Your task to perform on an android device: open app "eBay: The shopping marketplace" (install if not already installed) and go to login screen Image 0: 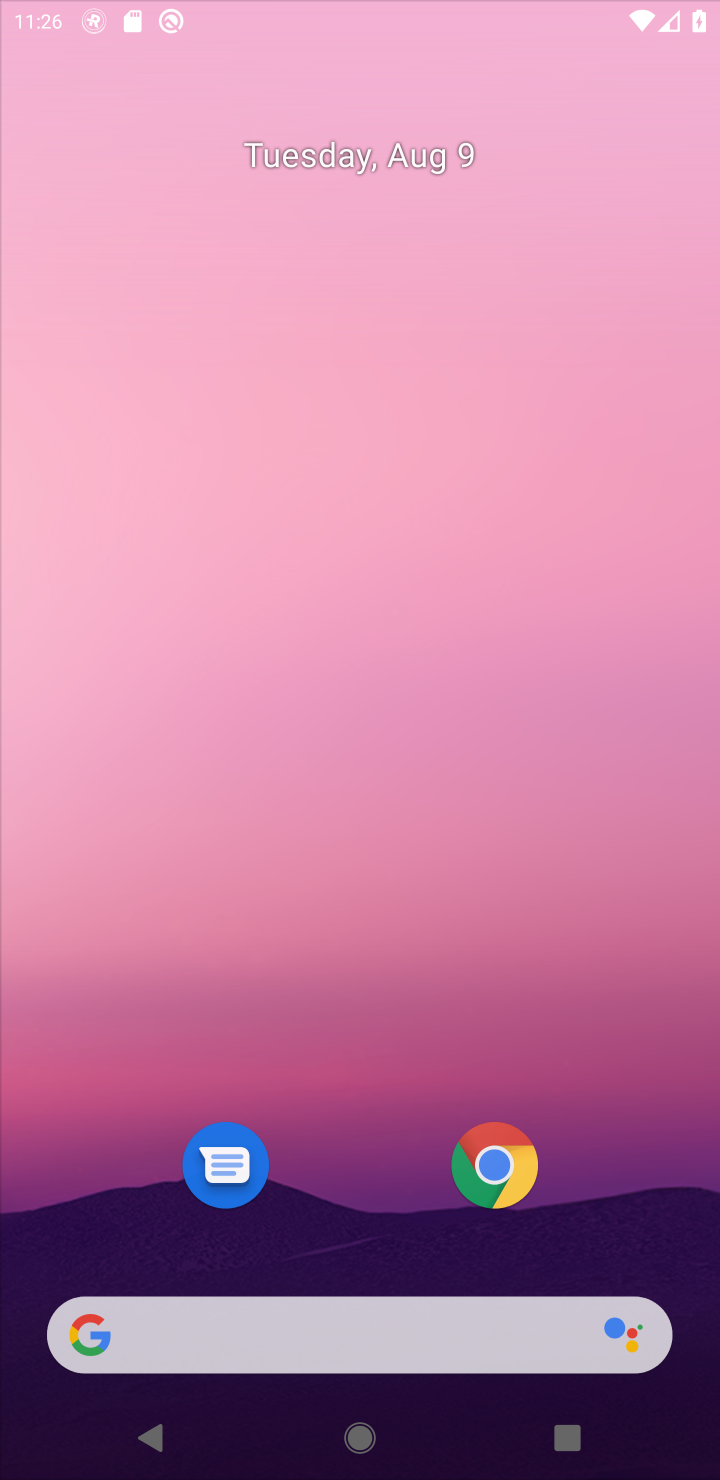
Step 0: press home button
Your task to perform on an android device: open app "eBay: The shopping marketplace" (install if not already installed) and go to login screen Image 1: 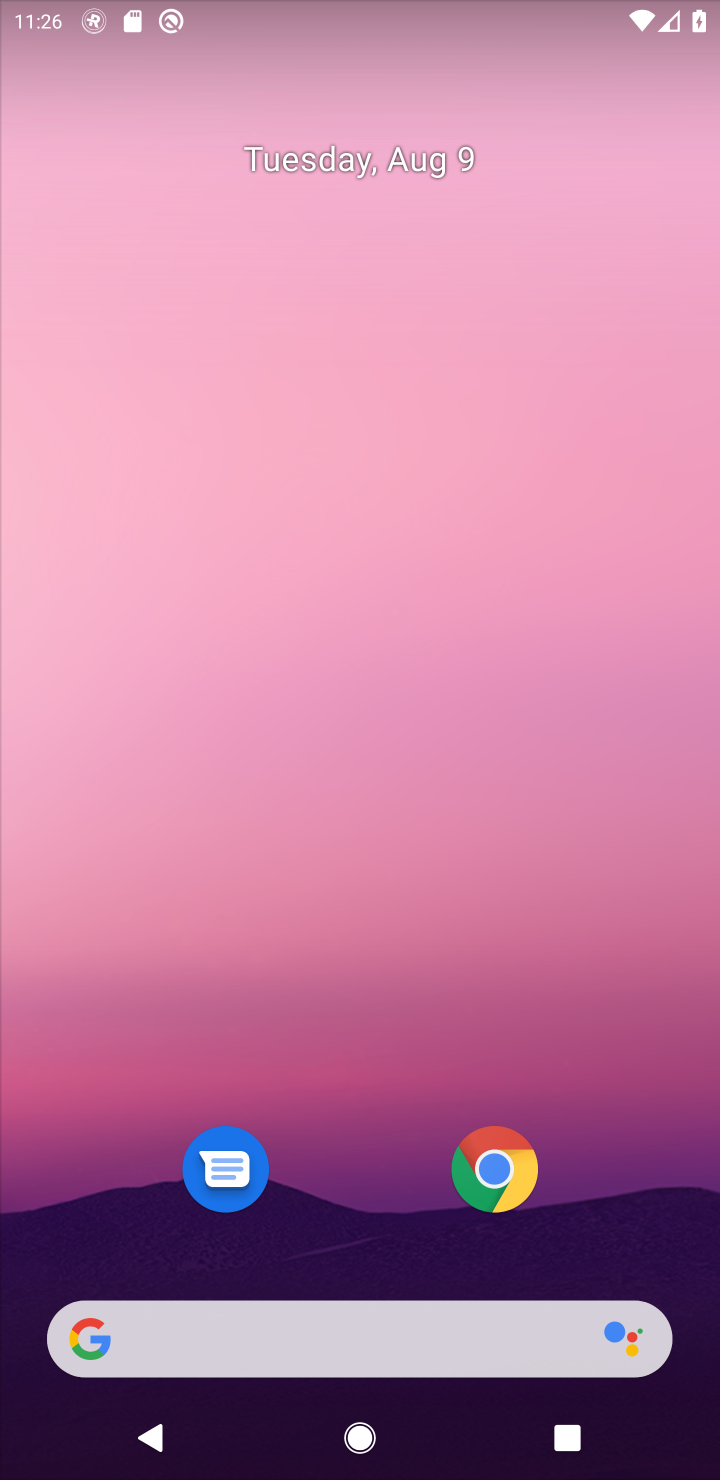
Step 1: drag from (610, 1031) to (590, 102)
Your task to perform on an android device: open app "eBay: The shopping marketplace" (install if not already installed) and go to login screen Image 2: 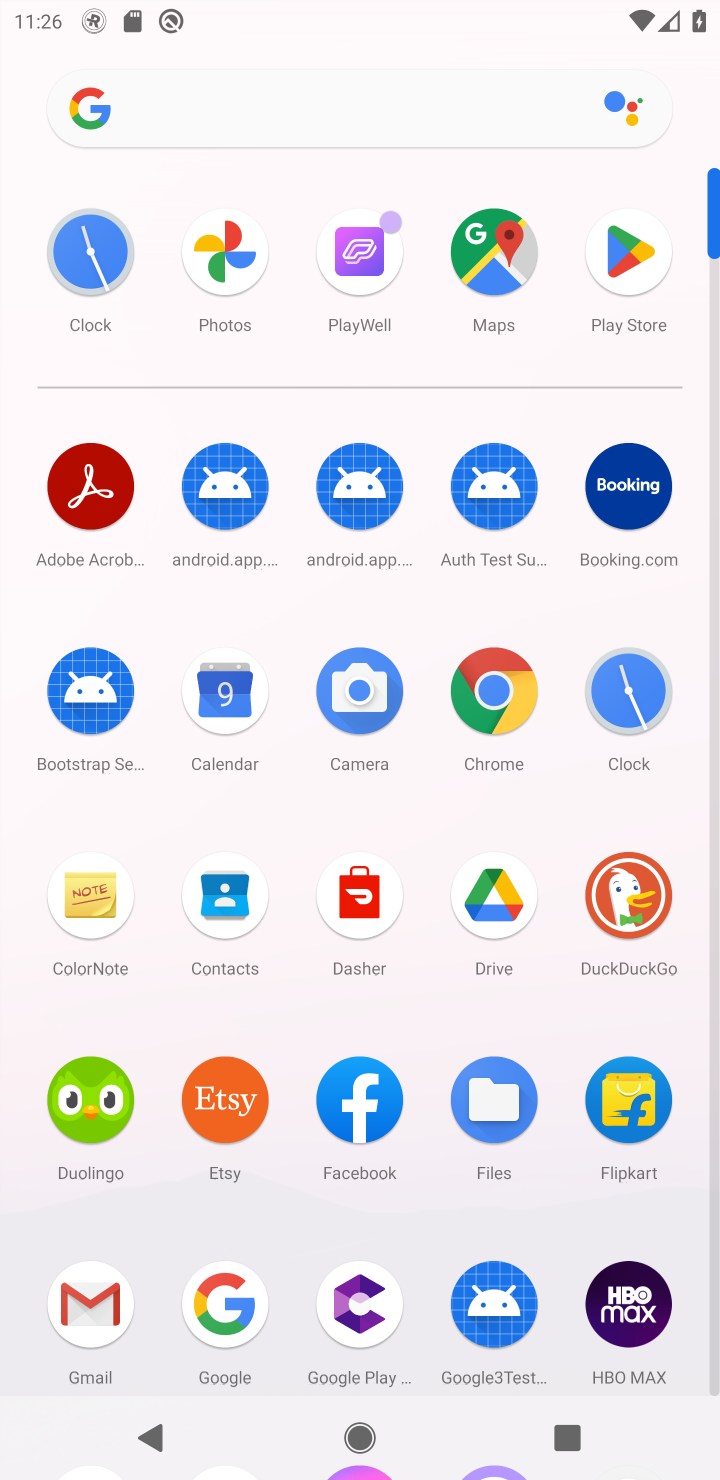
Step 2: click (629, 241)
Your task to perform on an android device: open app "eBay: The shopping marketplace" (install if not already installed) and go to login screen Image 3: 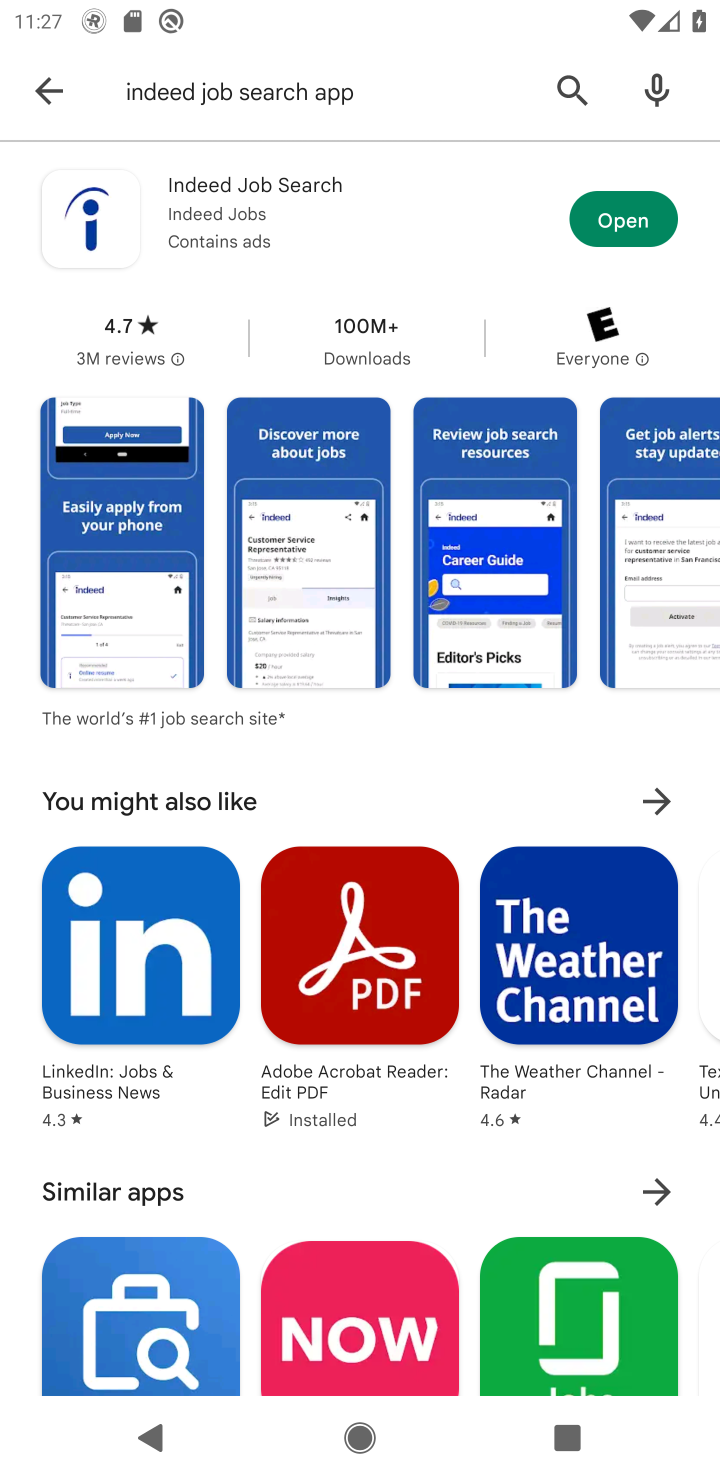
Step 3: click (565, 88)
Your task to perform on an android device: open app "eBay: The shopping marketplace" (install if not already installed) and go to login screen Image 4: 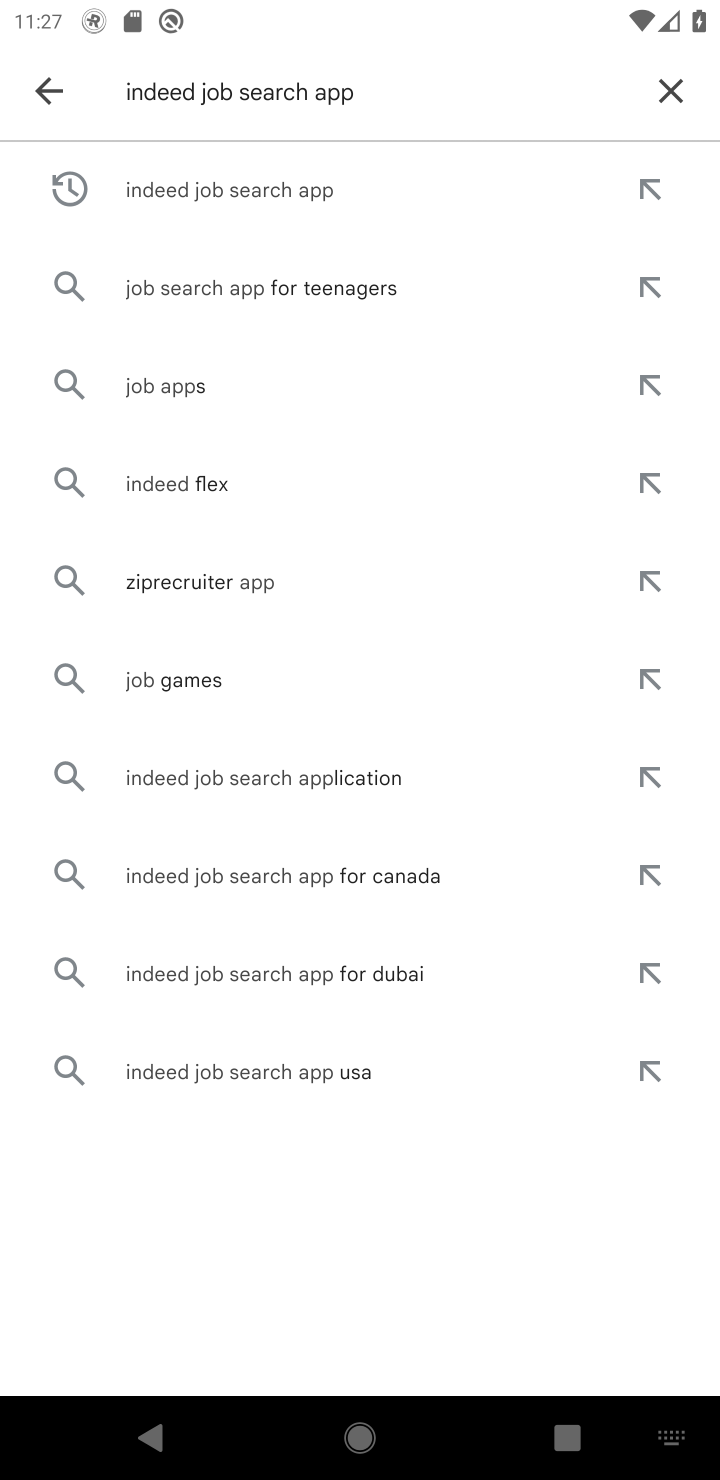
Step 4: click (673, 84)
Your task to perform on an android device: open app "eBay: The shopping marketplace" (install if not already installed) and go to login screen Image 5: 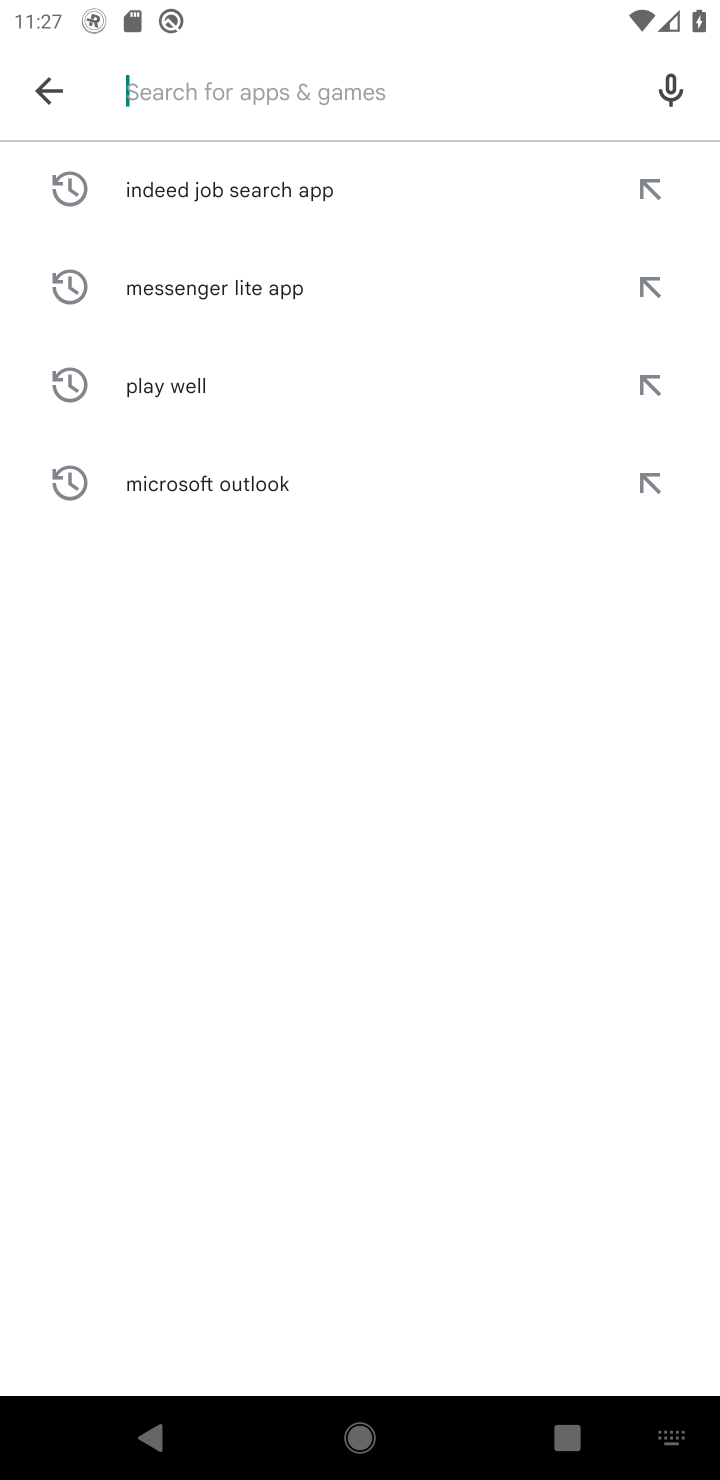
Step 5: type "eBay: The shopping marketplace"
Your task to perform on an android device: open app "eBay: The shopping marketplace" (install if not already installed) and go to login screen Image 6: 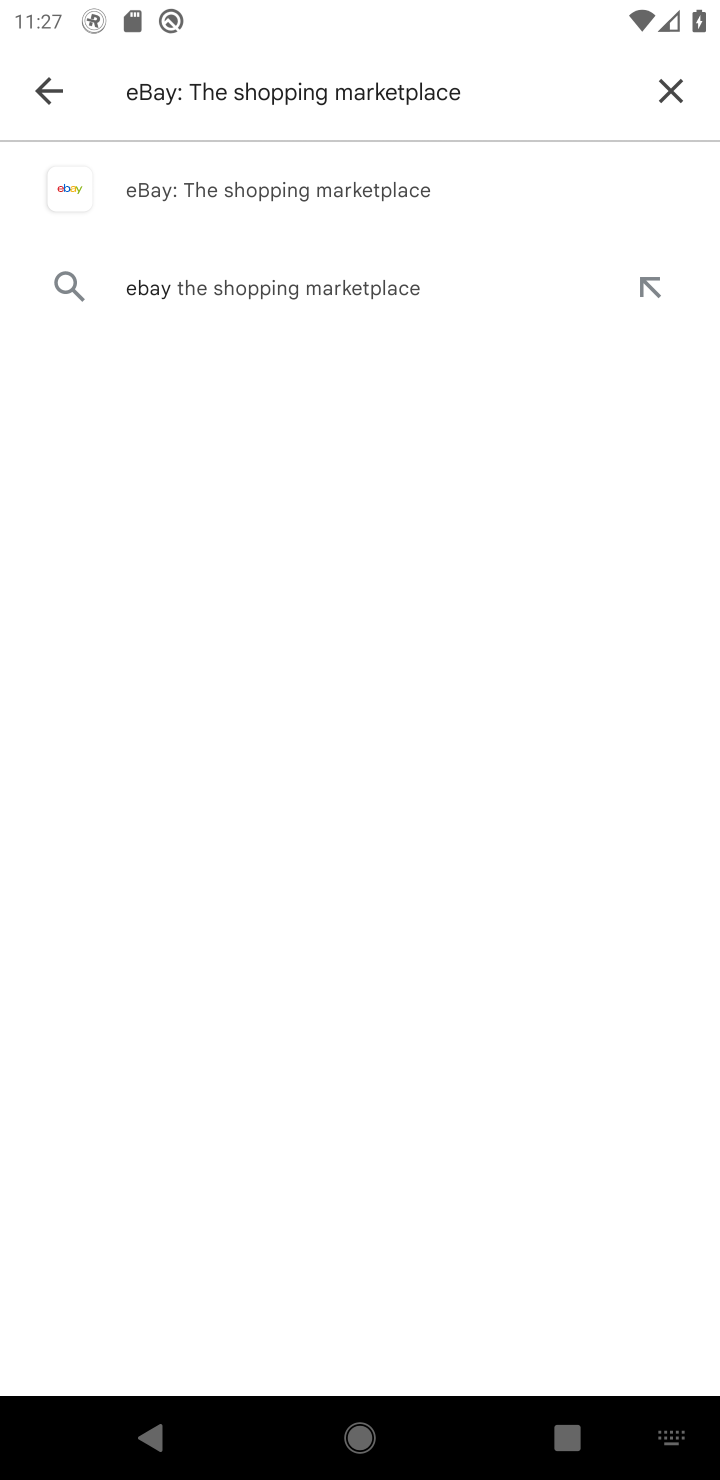
Step 6: click (379, 188)
Your task to perform on an android device: open app "eBay: The shopping marketplace" (install if not already installed) and go to login screen Image 7: 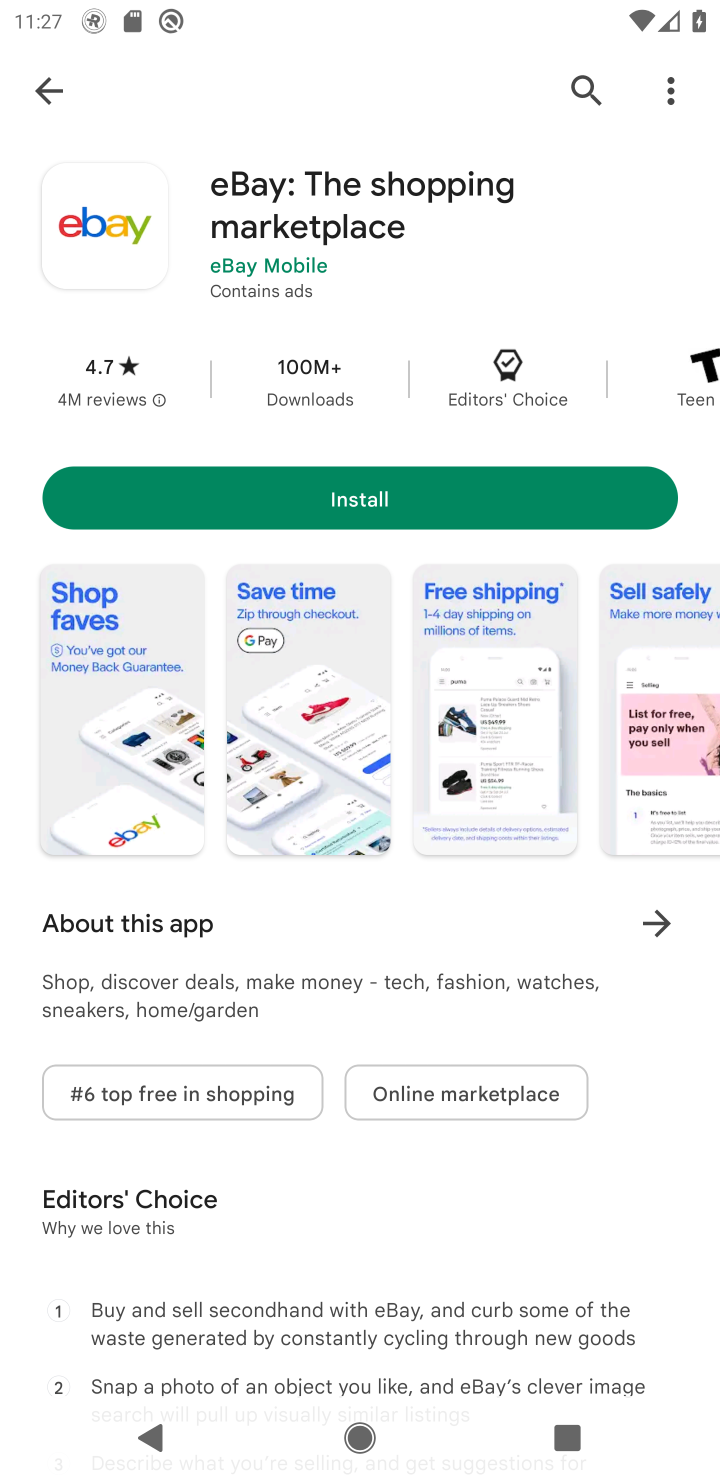
Step 7: click (395, 493)
Your task to perform on an android device: open app "eBay: The shopping marketplace" (install if not already installed) and go to login screen Image 8: 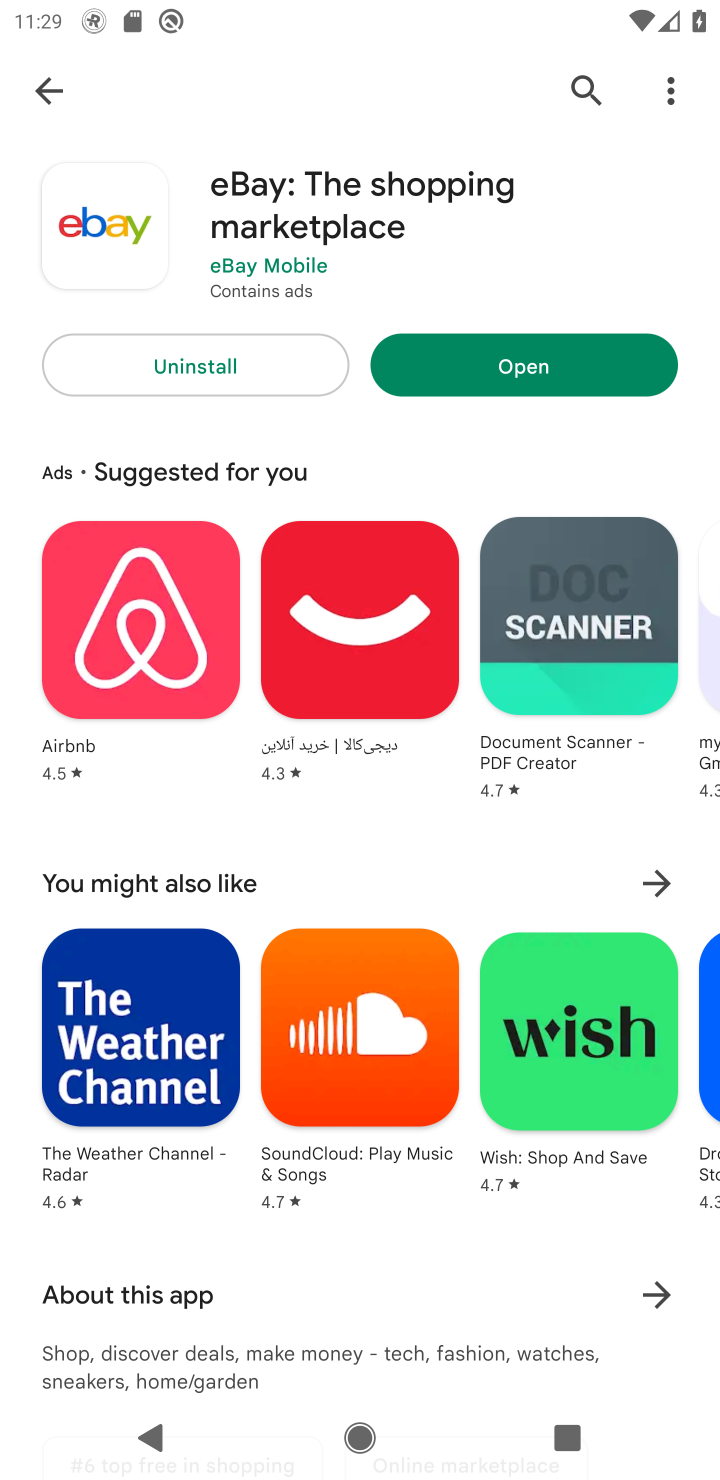
Step 8: click (541, 366)
Your task to perform on an android device: open app "eBay: The shopping marketplace" (install if not already installed) and go to login screen Image 9: 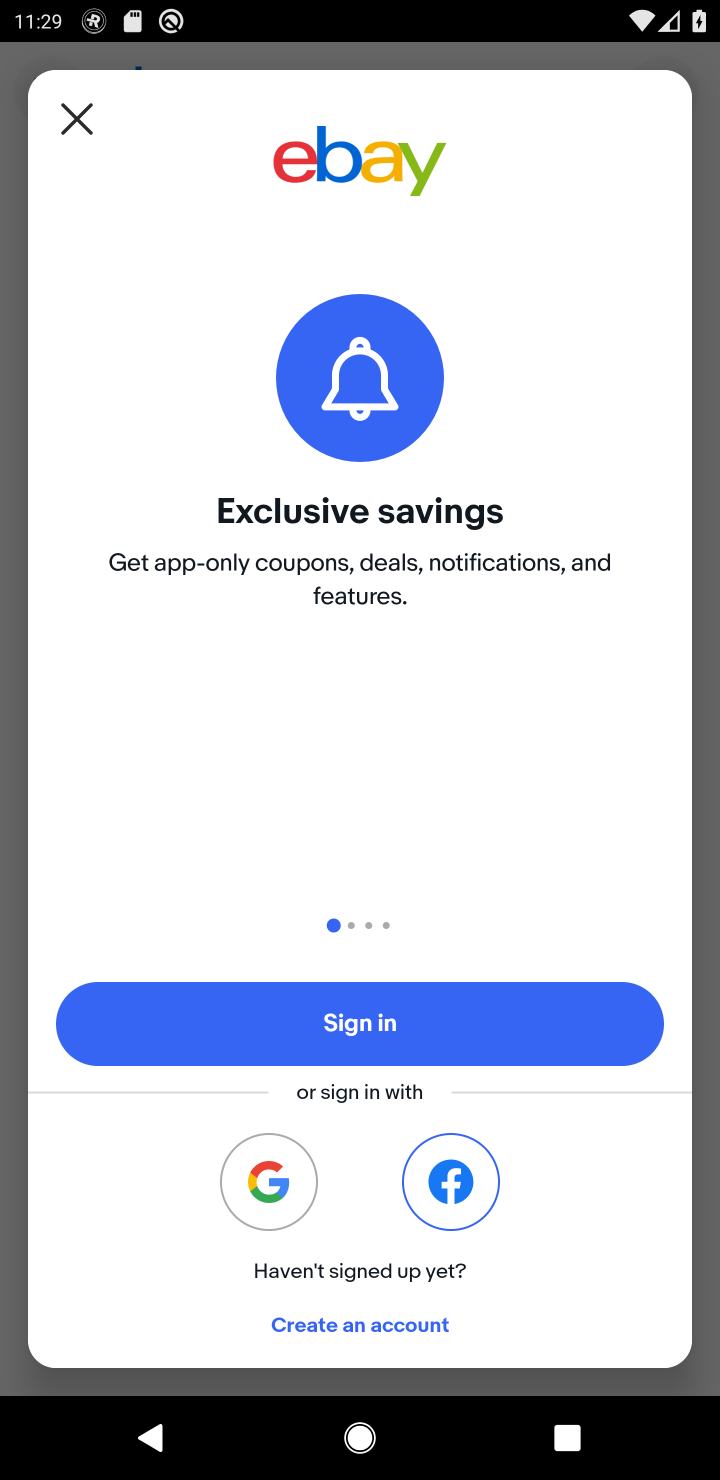
Step 9: click (472, 1018)
Your task to perform on an android device: open app "eBay: The shopping marketplace" (install if not already installed) and go to login screen Image 10: 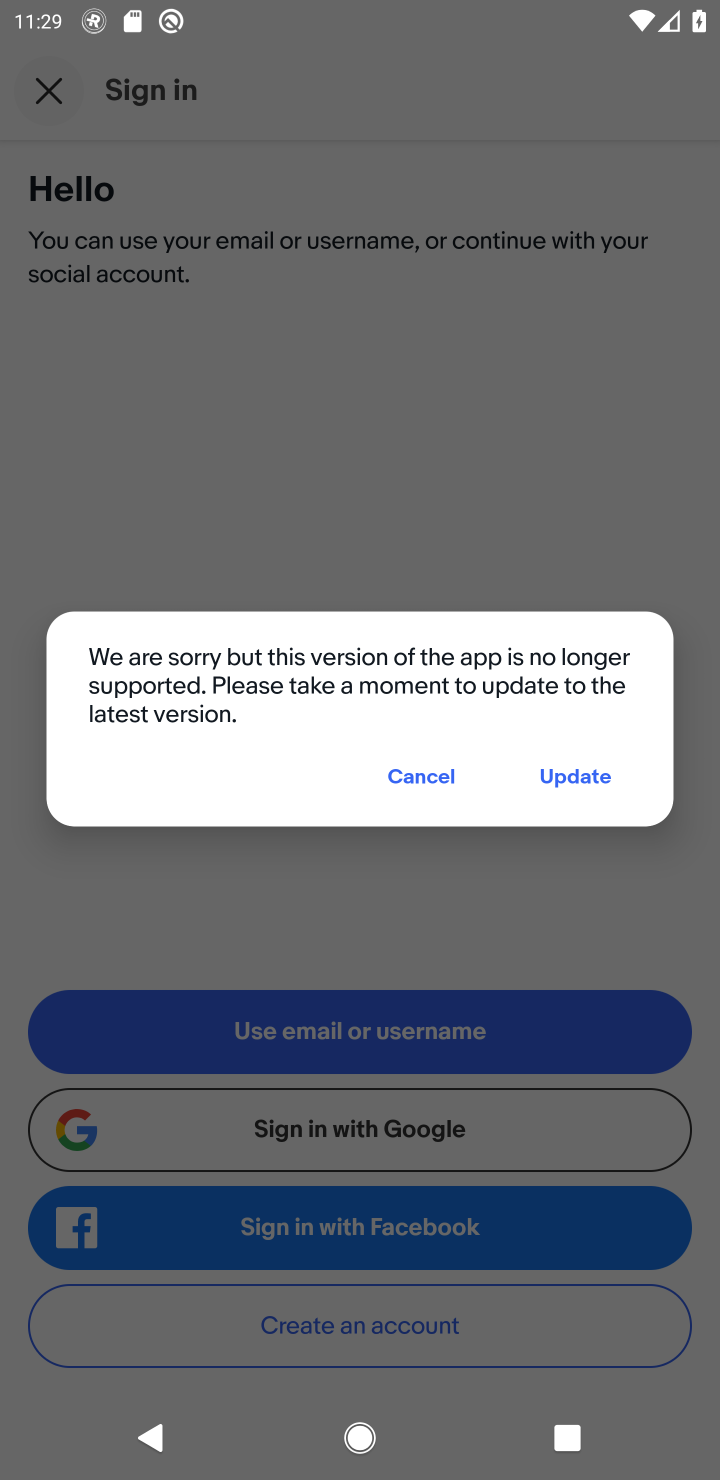
Step 10: click (434, 753)
Your task to perform on an android device: open app "eBay: The shopping marketplace" (install if not already installed) and go to login screen Image 11: 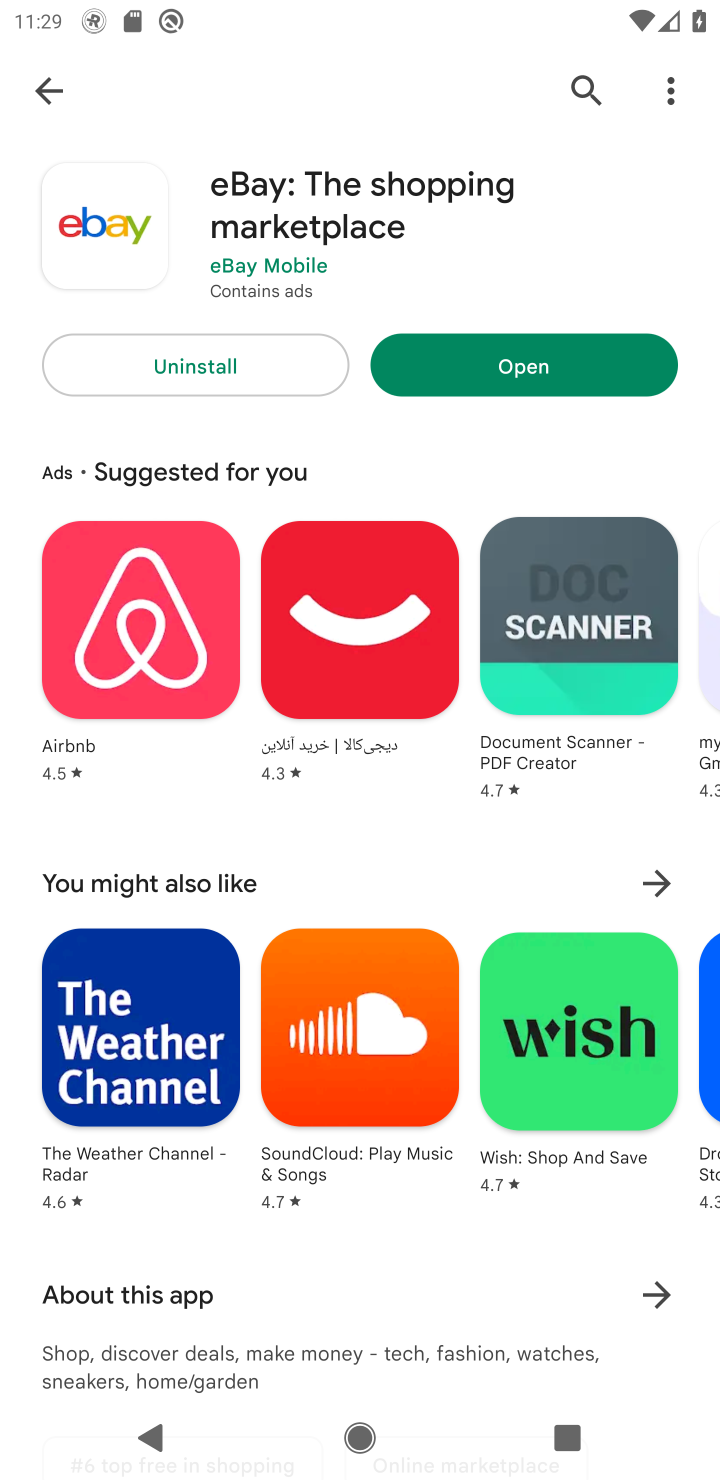
Step 11: click (500, 367)
Your task to perform on an android device: open app "eBay: The shopping marketplace" (install if not already installed) and go to login screen Image 12: 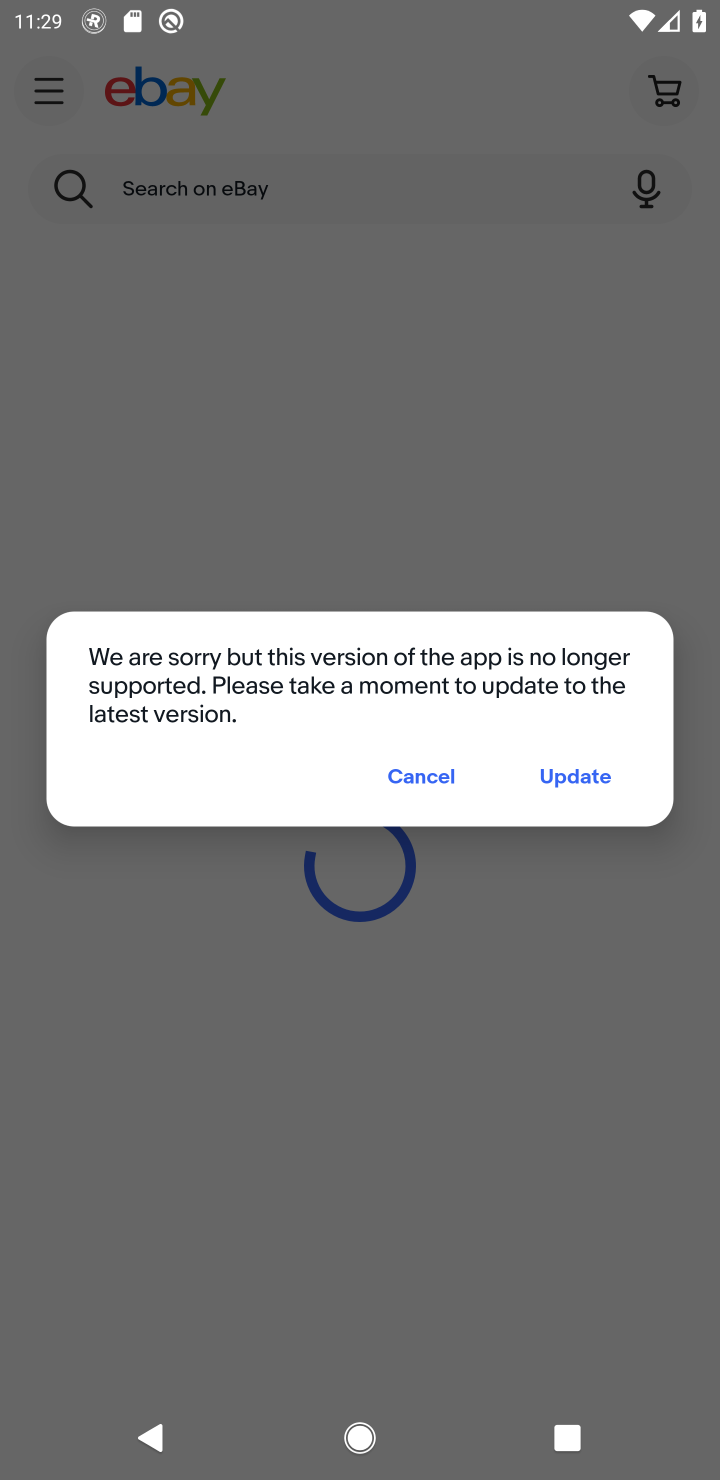
Step 12: click (582, 775)
Your task to perform on an android device: open app "eBay: The shopping marketplace" (install if not already installed) and go to login screen Image 13: 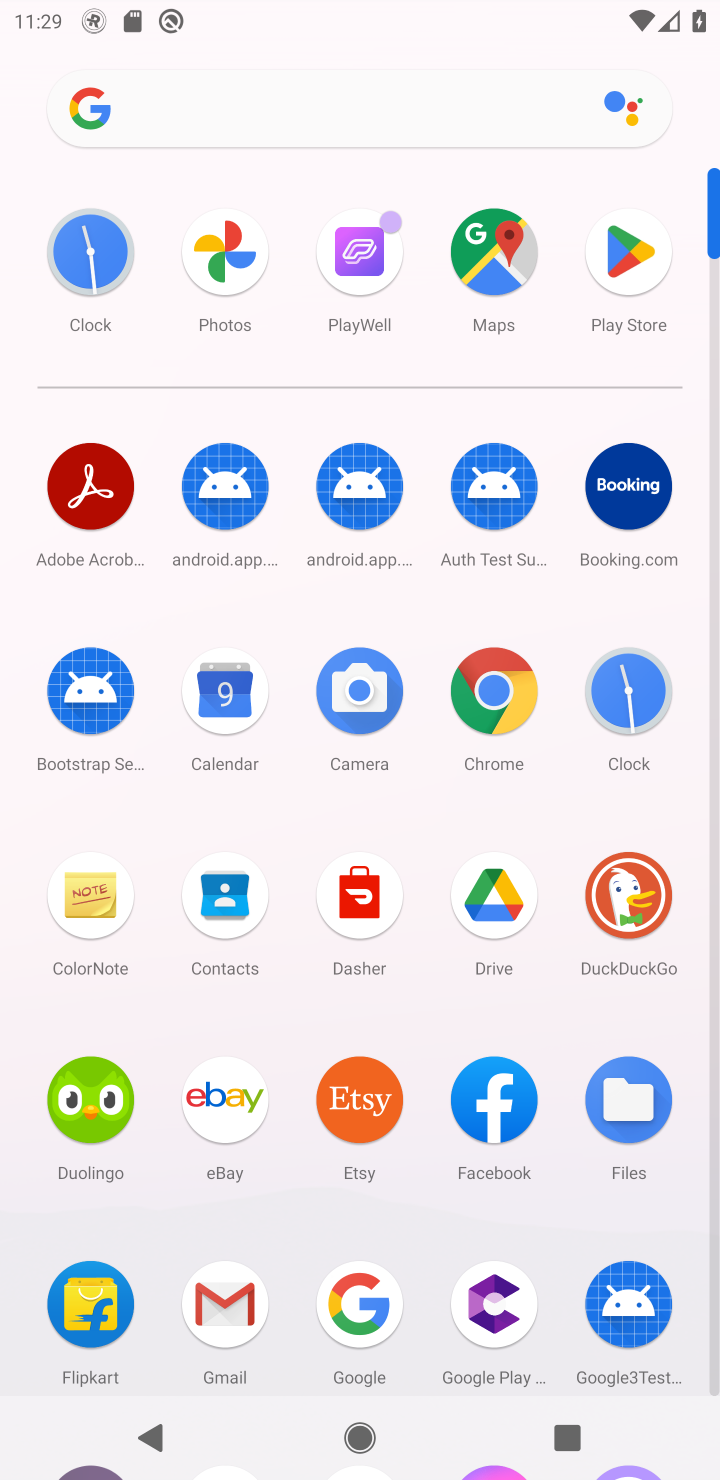
Step 13: task complete